Your task to perform on an android device: add a label to a message in the gmail app Image 0: 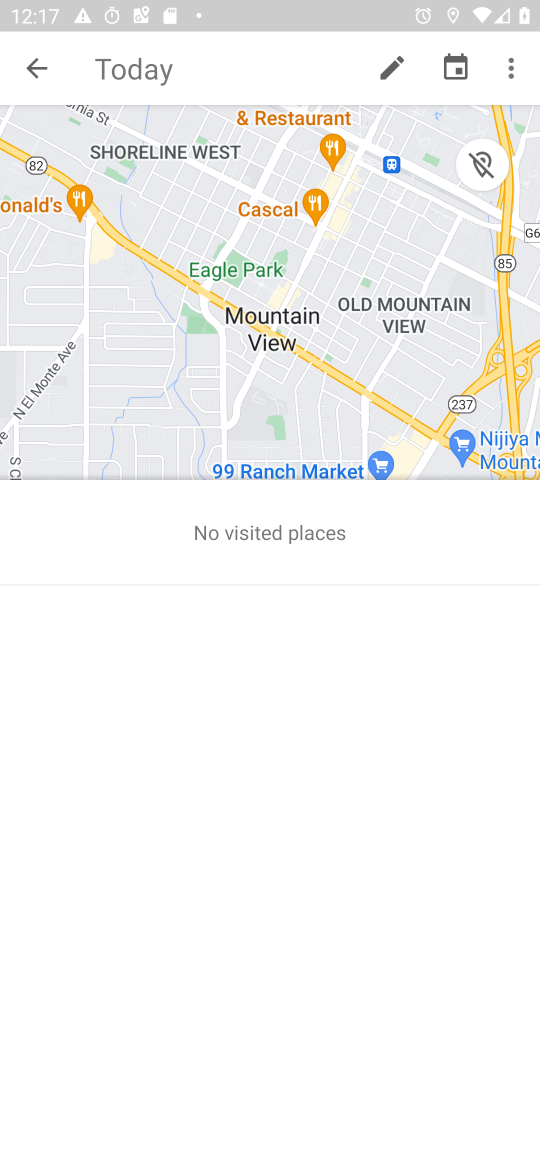
Step 0: press home button
Your task to perform on an android device: add a label to a message in the gmail app Image 1: 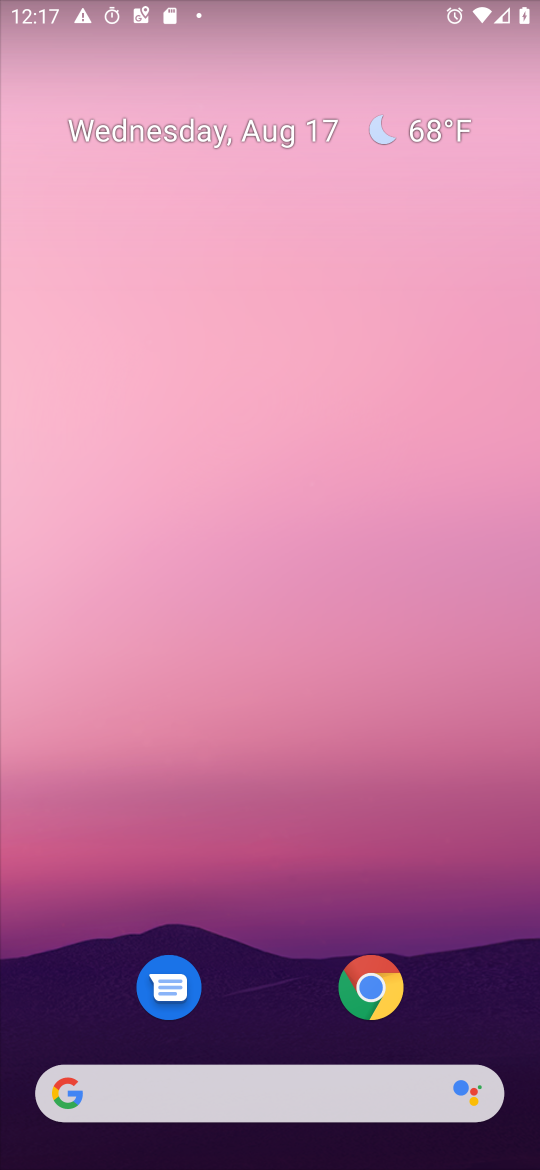
Step 1: drag from (0, 1132) to (356, 418)
Your task to perform on an android device: add a label to a message in the gmail app Image 2: 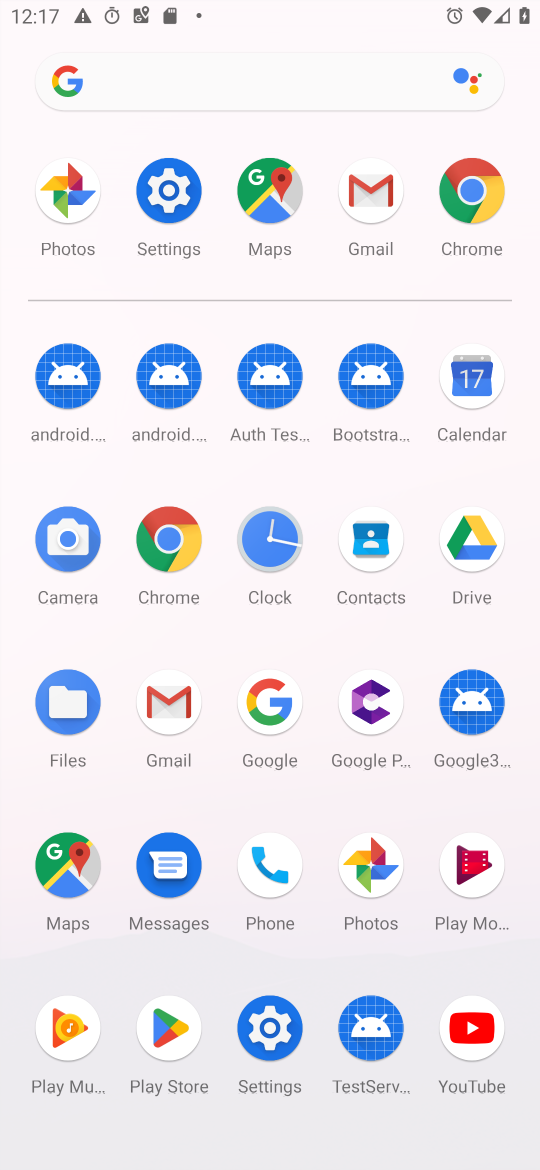
Step 2: click (362, 206)
Your task to perform on an android device: add a label to a message in the gmail app Image 3: 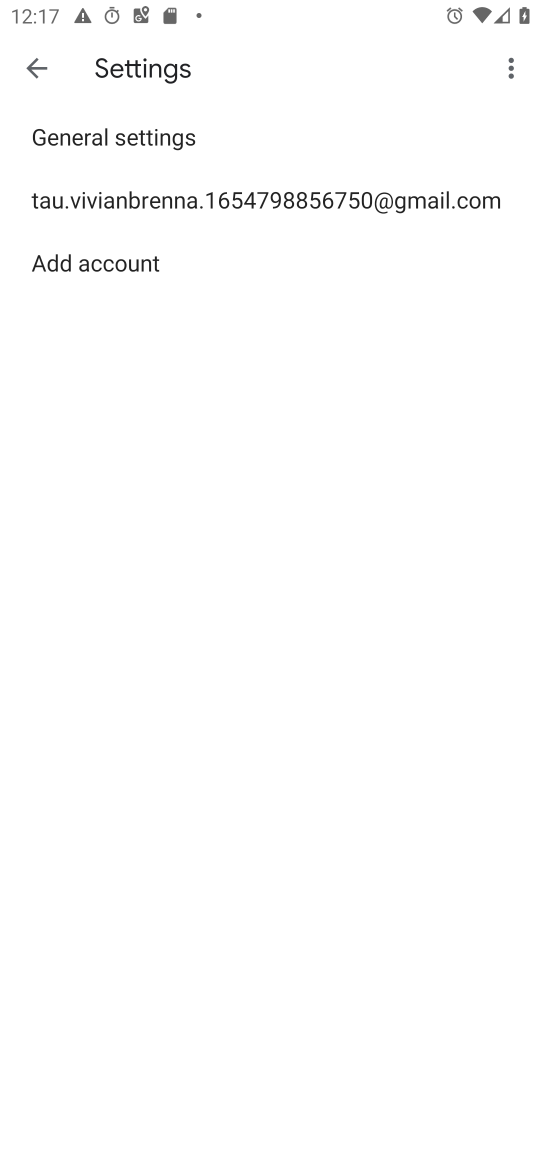
Step 3: click (32, 69)
Your task to perform on an android device: add a label to a message in the gmail app Image 4: 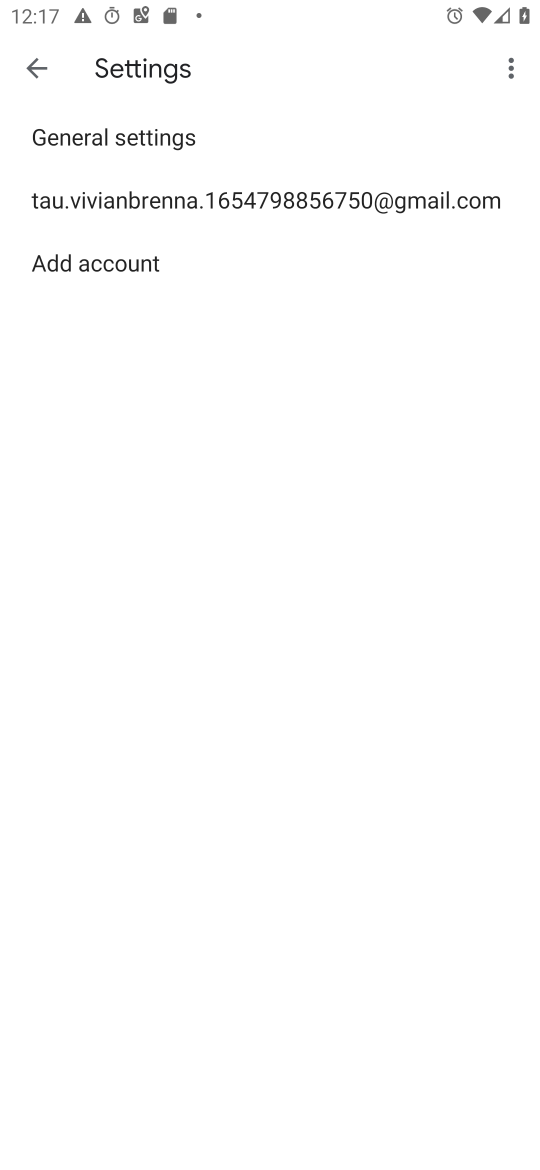
Step 4: task complete